Your task to perform on an android device: Open Chrome and go to the settings page Image 0: 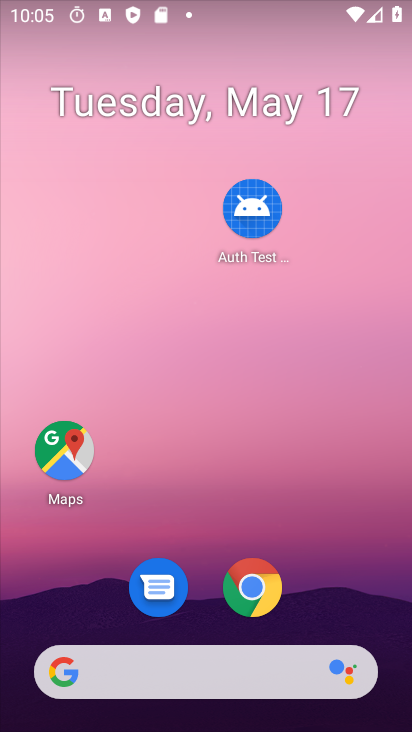
Step 0: drag from (203, 480) to (26, 182)
Your task to perform on an android device: Open Chrome and go to the settings page Image 1: 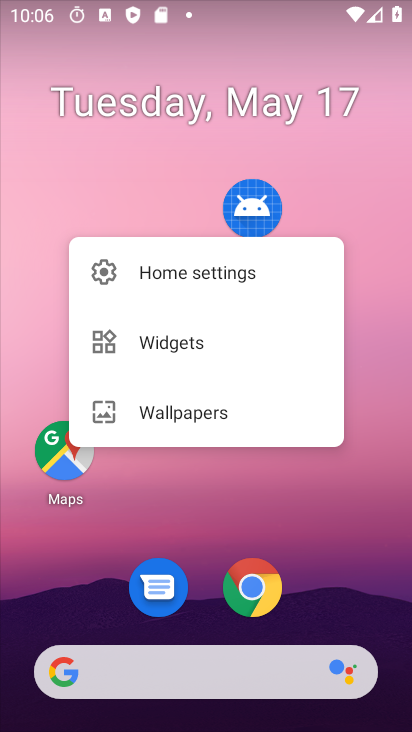
Step 1: click (246, 497)
Your task to perform on an android device: Open Chrome and go to the settings page Image 2: 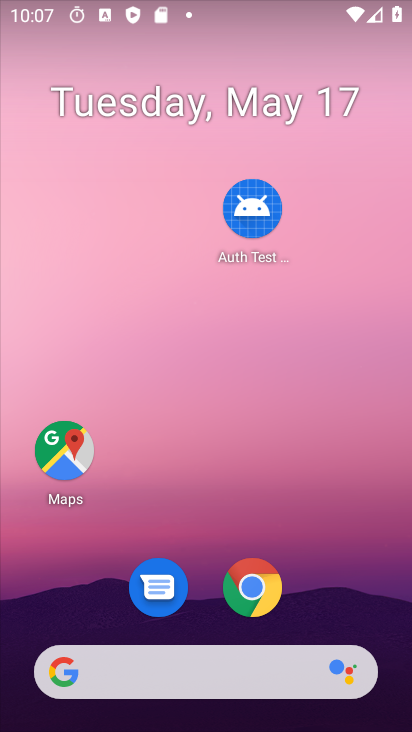
Step 2: click (167, 206)
Your task to perform on an android device: Open Chrome and go to the settings page Image 3: 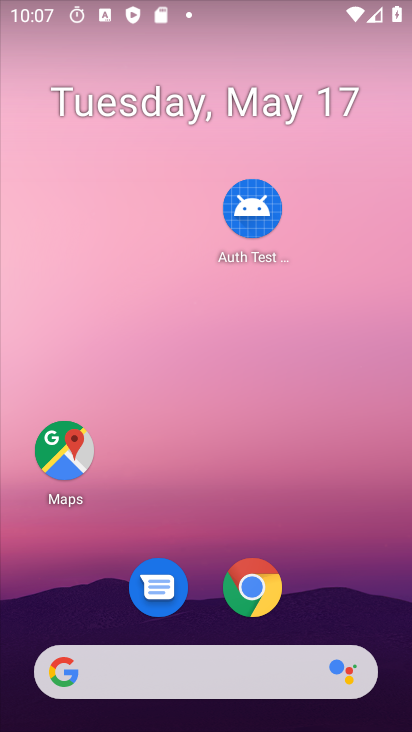
Step 3: drag from (222, 315) to (20, 243)
Your task to perform on an android device: Open Chrome and go to the settings page Image 4: 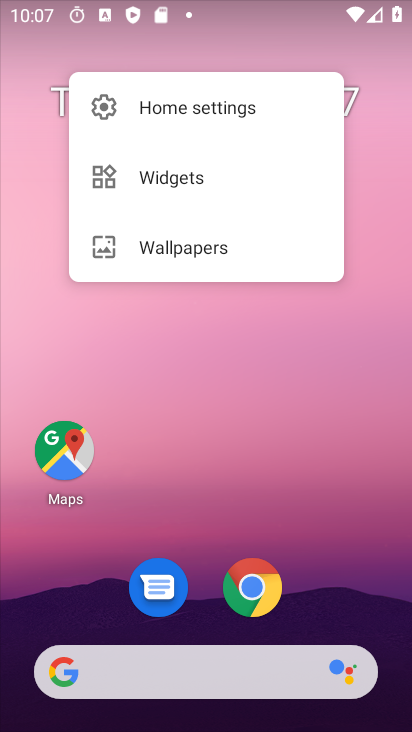
Step 4: click (311, 382)
Your task to perform on an android device: Open Chrome and go to the settings page Image 5: 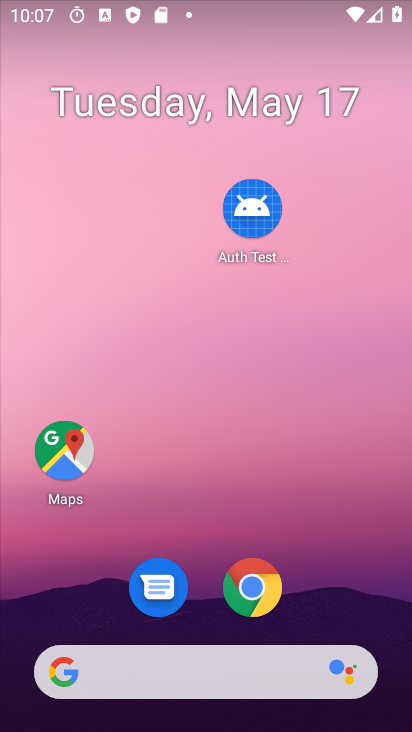
Step 5: drag from (232, 523) to (197, 60)
Your task to perform on an android device: Open Chrome and go to the settings page Image 6: 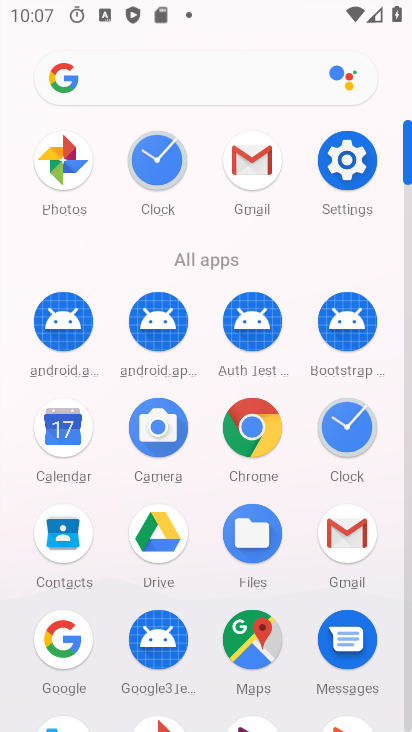
Step 6: click (242, 442)
Your task to perform on an android device: Open Chrome and go to the settings page Image 7: 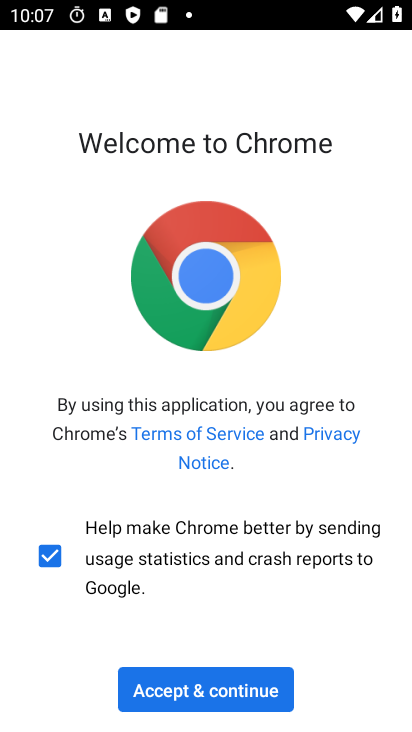
Step 7: click (233, 691)
Your task to perform on an android device: Open Chrome and go to the settings page Image 8: 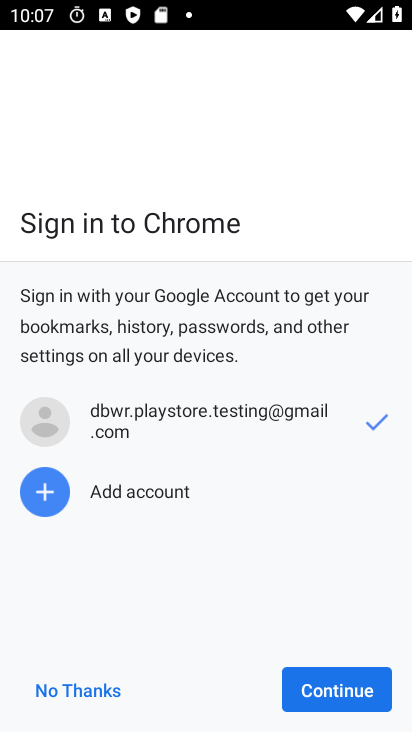
Step 8: click (319, 695)
Your task to perform on an android device: Open Chrome and go to the settings page Image 9: 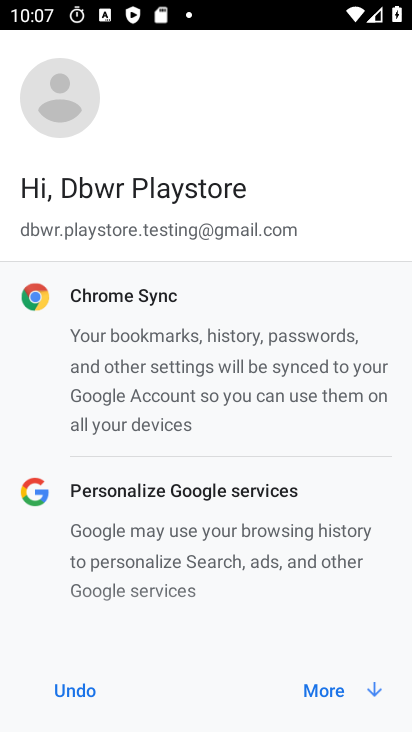
Step 9: click (319, 695)
Your task to perform on an android device: Open Chrome and go to the settings page Image 10: 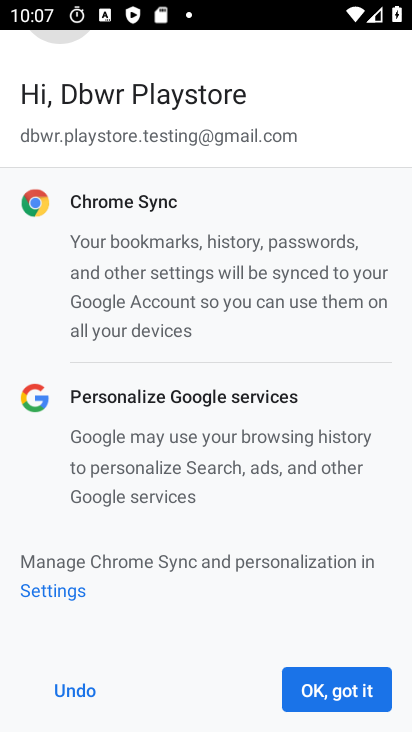
Step 10: click (319, 695)
Your task to perform on an android device: Open Chrome and go to the settings page Image 11: 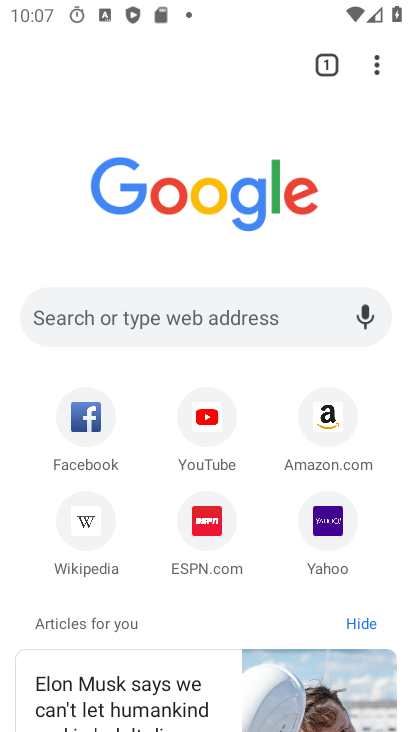
Step 11: click (380, 71)
Your task to perform on an android device: Open Chrome and go to the settings page Image 12: 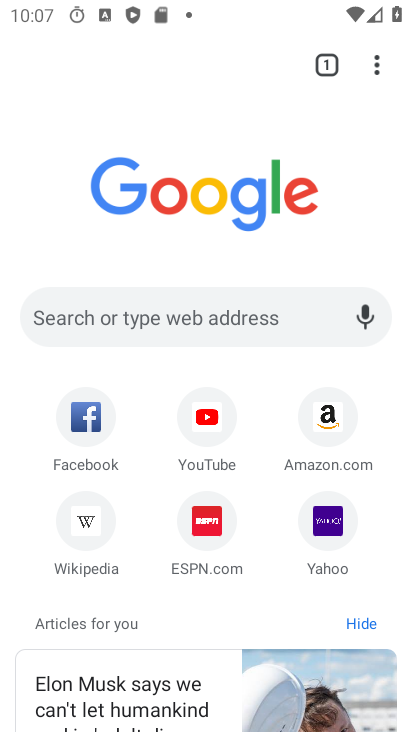
Step 12: click (380, 71)
Your task to perform on an android device: Open Chrome and go to the settings page Image 13: 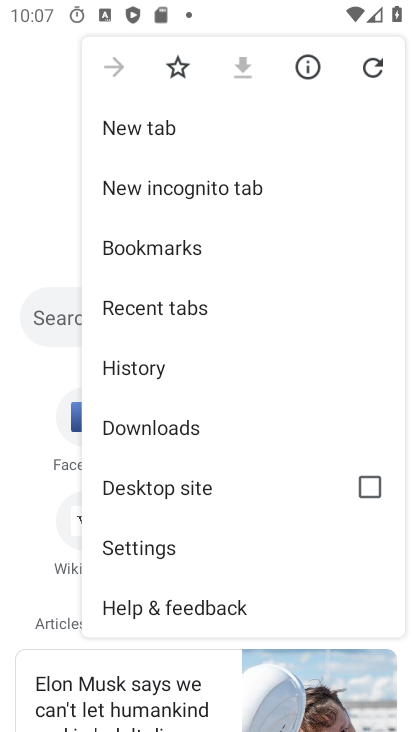
Step 13: click (175, 558)
Your task to perform on an android device: Open Chrome and go to the settings page Image 14: 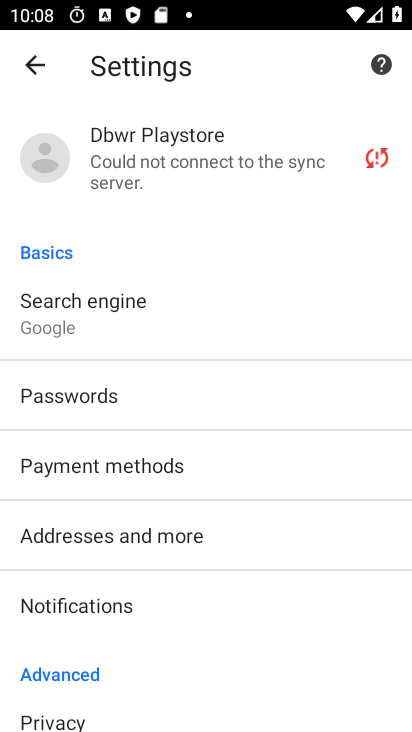
Step 14: task complete